Your task to perform on an android device: turn off javascript in the chrome app Image 0: 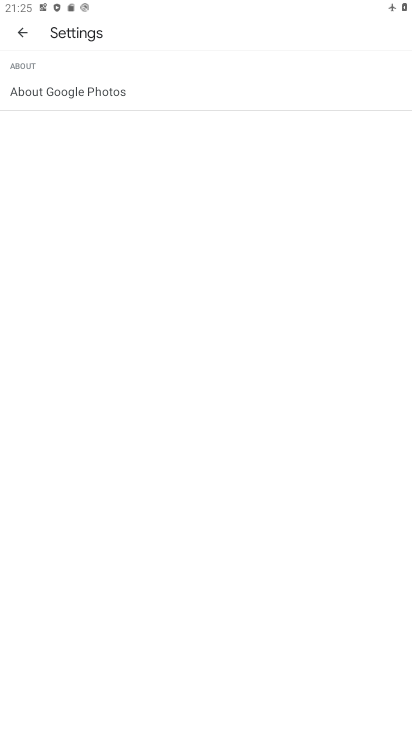
Step 0: press home button
Your task to perform on an android device: turn off javascript in the chrome app Image 1: 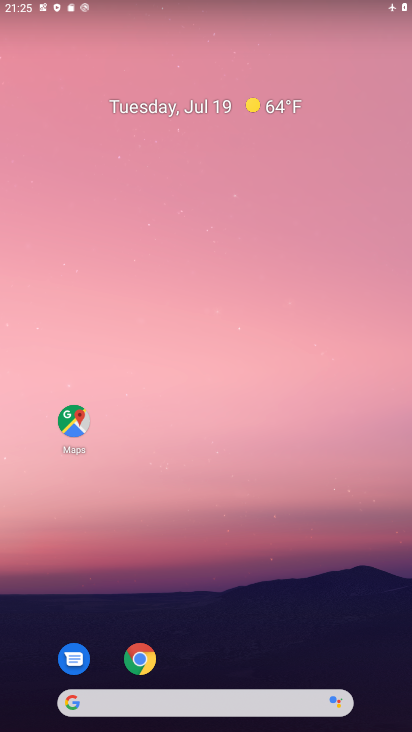
Step 1: click (140, 655)
Your task to perform on an android device: turn off javascript in the chrome app Image 2: 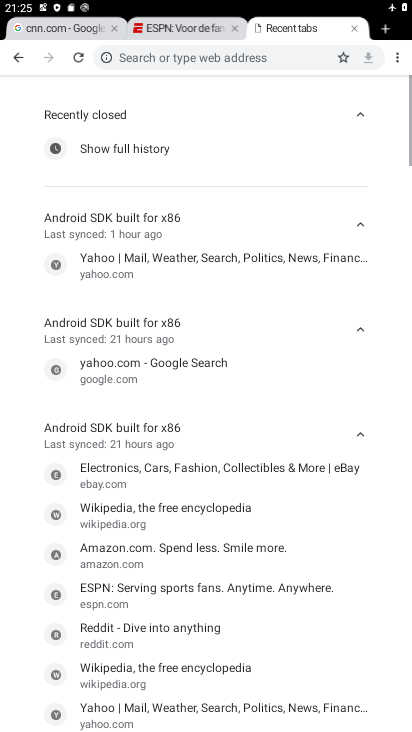
Step 2: click (398, 56)
Your task to perform on an android device: turn off javascript in the chrome app Image 3: 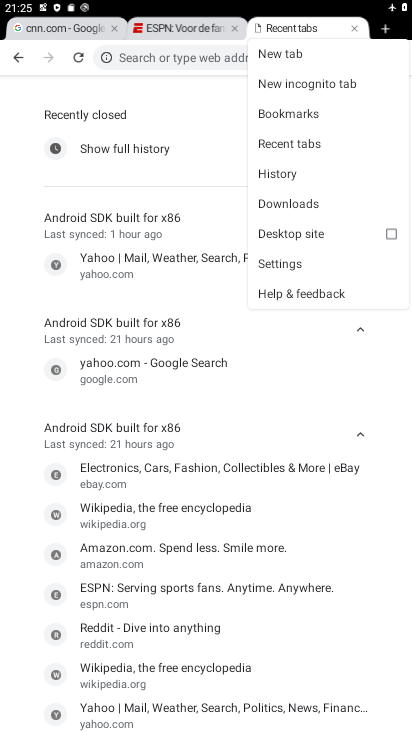
Step 3: click (261, 261)
Your task to perform on an android device: turn off javascript in the chrome app Image 4: 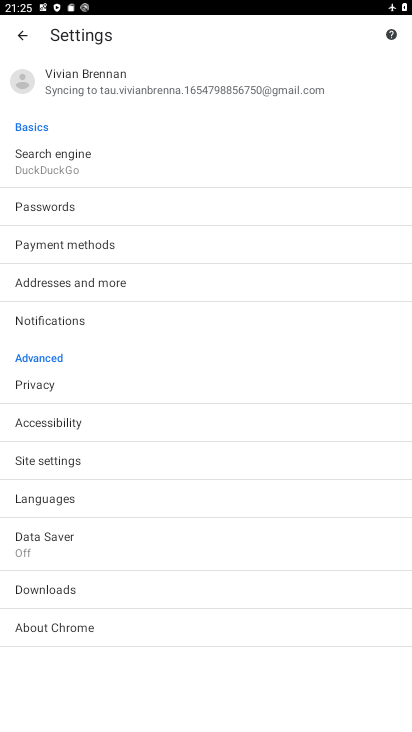
Step 4: click (147, 464)
Your task to perform on an android device: turn off javascript in the chrome app Image 5: 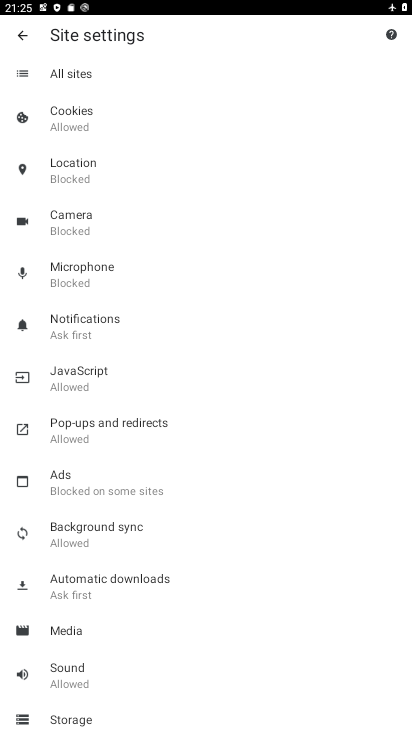
Step 5: click (161, 366)
Your task to perform on an android device: turn off javascript in the chrome app Image 6: 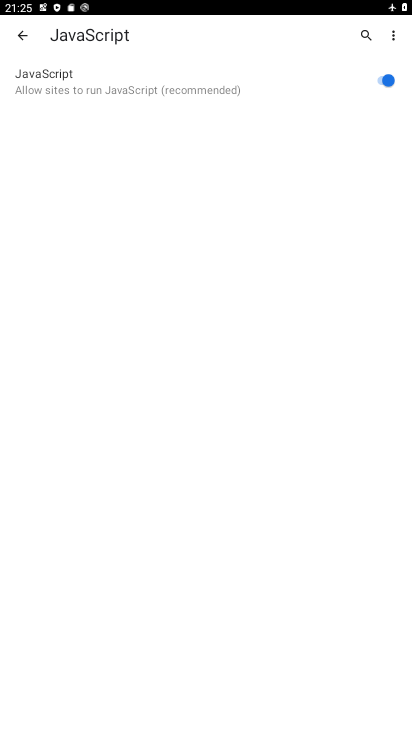
Step 6: task complete